Your task to perform on an android device: find snoozed emails in the gmail app Image 0: 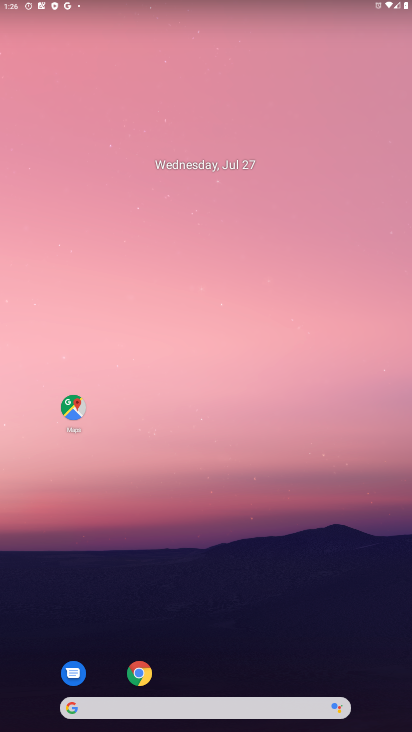
Step 0: drag from (215, 687) to (260, 48)
Your task to perform on an android device: find snoozed emails in the gmail app Image 1: 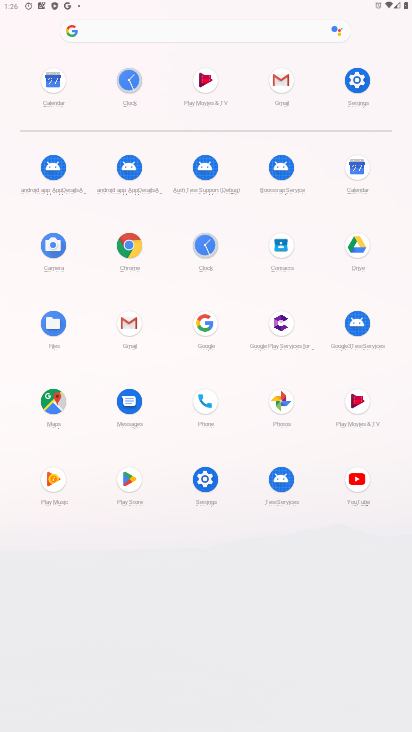
Step 1: click (283, 82)
Your task to perform on an android device: find snoozed emails in the gmail app Image 2: 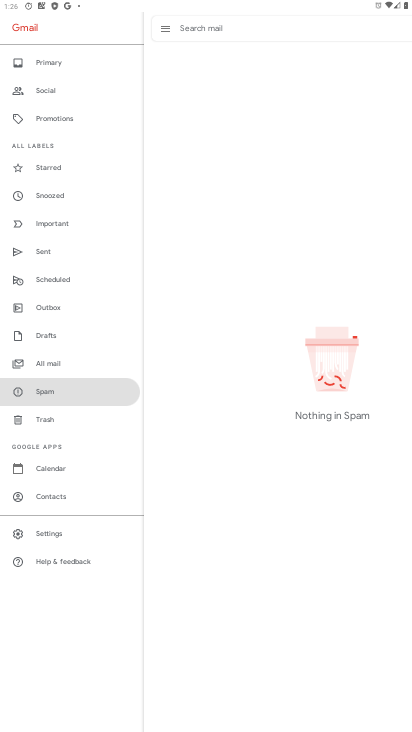
Step 2: click (48, 197)
Your task to perform on an android device: find snoozed emails in the gmail app Image 3: 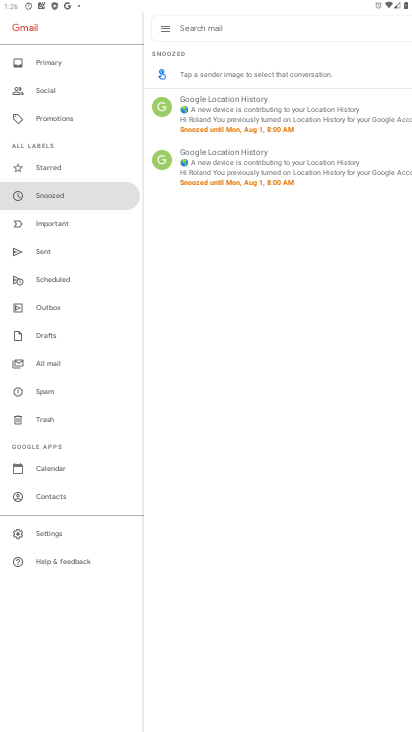
Step 3: click (48, 198)
Your task to perform on an android device: find snoozed emails in the gmail app Image 4: 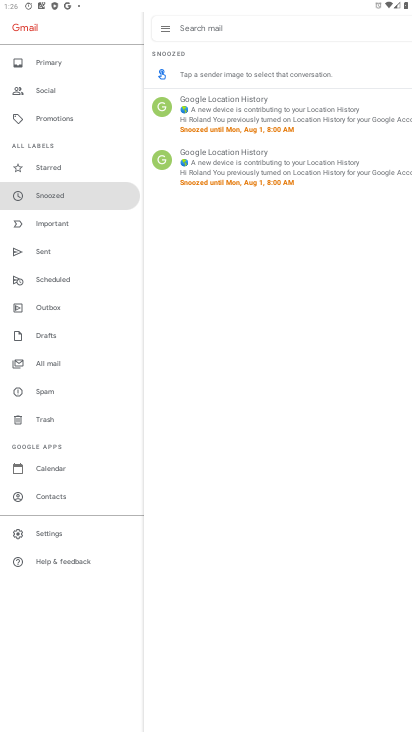
Step 4: task complete